Your task to perform on an android device: Go to accessibility settings Image 0: 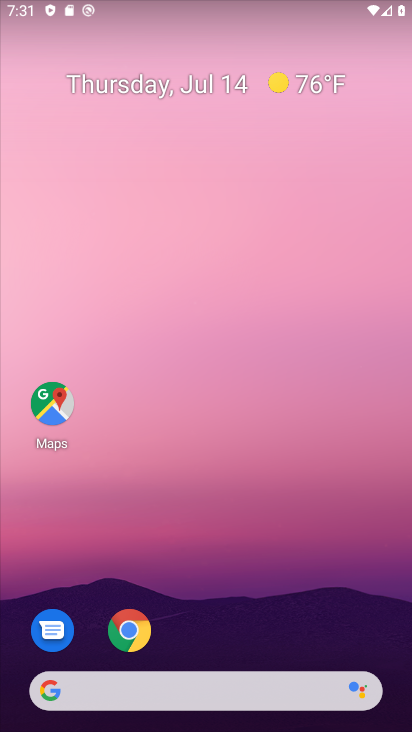
Step 0: drag from (249, 556) to (249, 232)
Your task to perform on an android device: Go to accessibility settings Image 1: 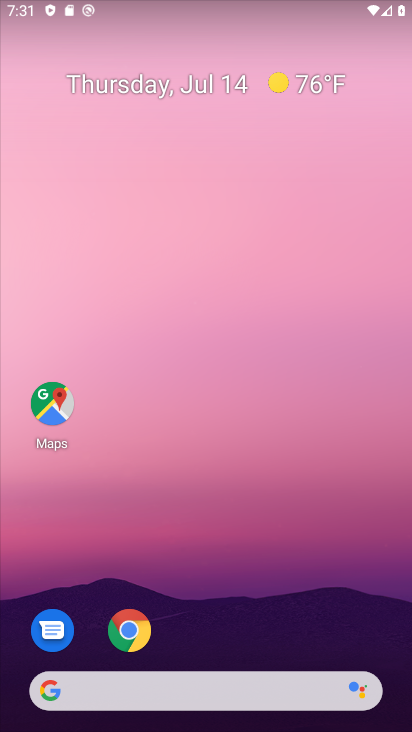
Step 1: drag from (217, 667) to (238, 12)
Your task to perform on an android device: Go to accessibility settings Image 2: 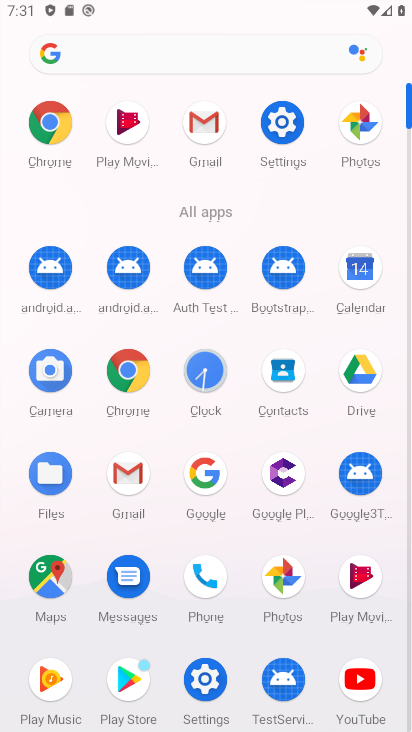
Step 2: click (287, 125)
Your task to perform on an android device: Go to accessibility settings Image 3: 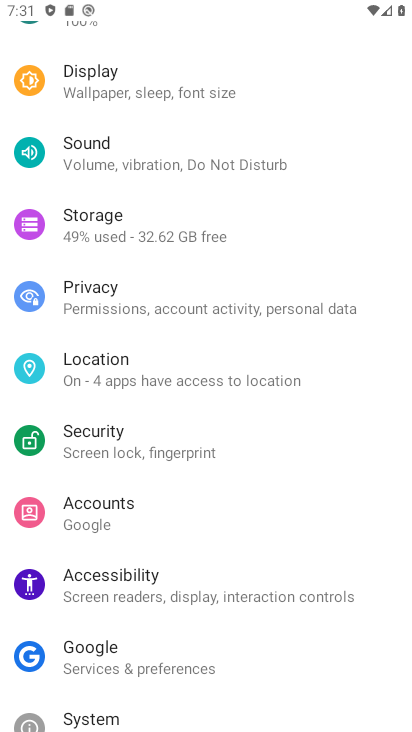
Step 3: click (136, 561)
Your task to perform on an android device: Go to accessibility settings Image 4: 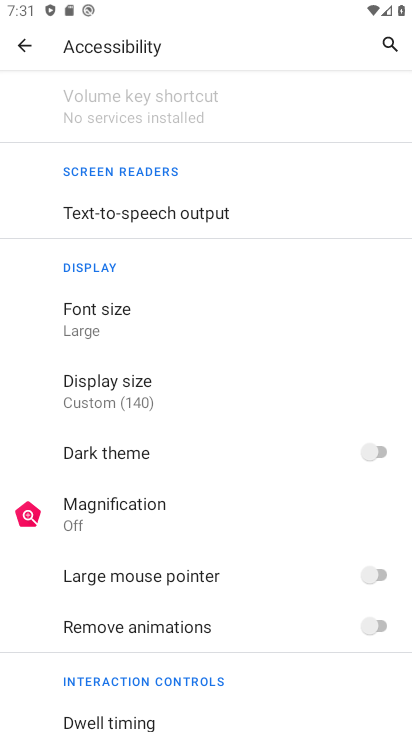
Step 4: click (136, 561)
Your task to perform on an android device: Go to accessibility settings Image 5: 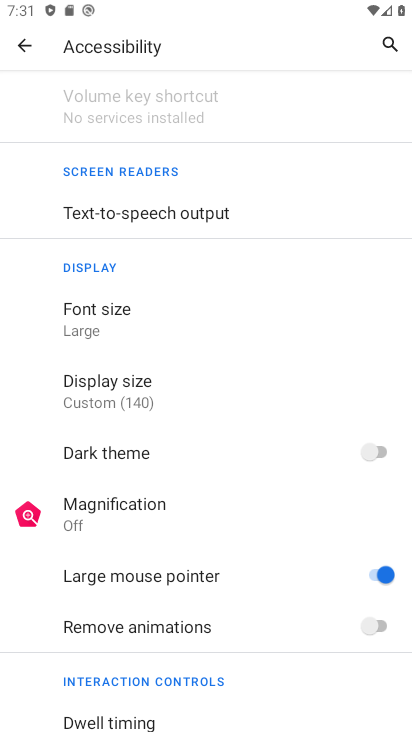
Step 5: task complete